Your task to perform on an android device: Clear all items from cart on walmart.com. Add energizer triple a to the cart on walmart.com Image 0: 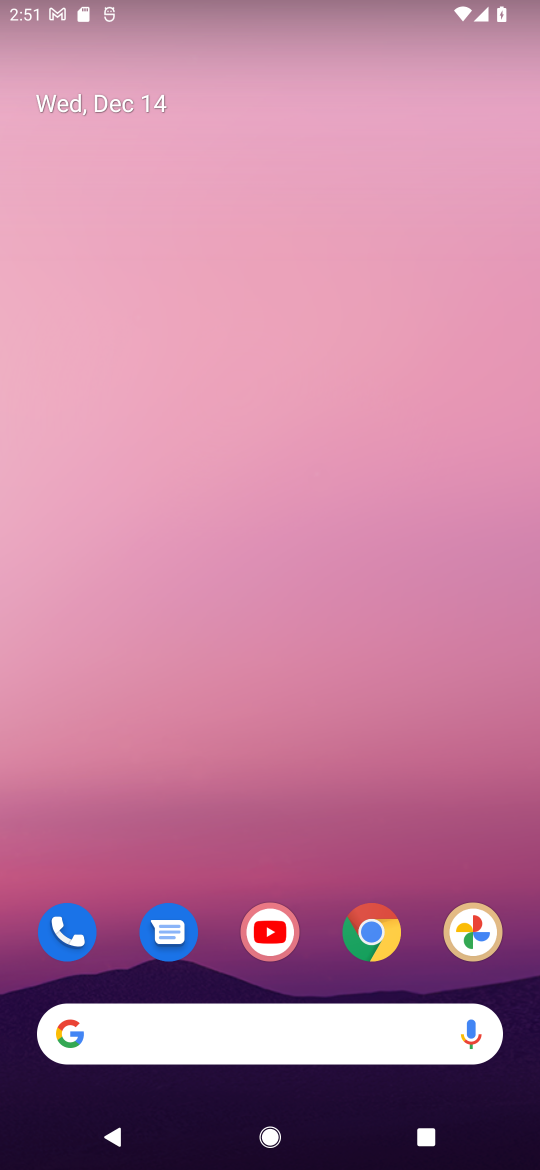
Step 0: click (259, 1030)
Your task to perform on an android device: Clear all items from cart on walmart.com. Add energizer triple a to the cart on walmart.com Image 1: 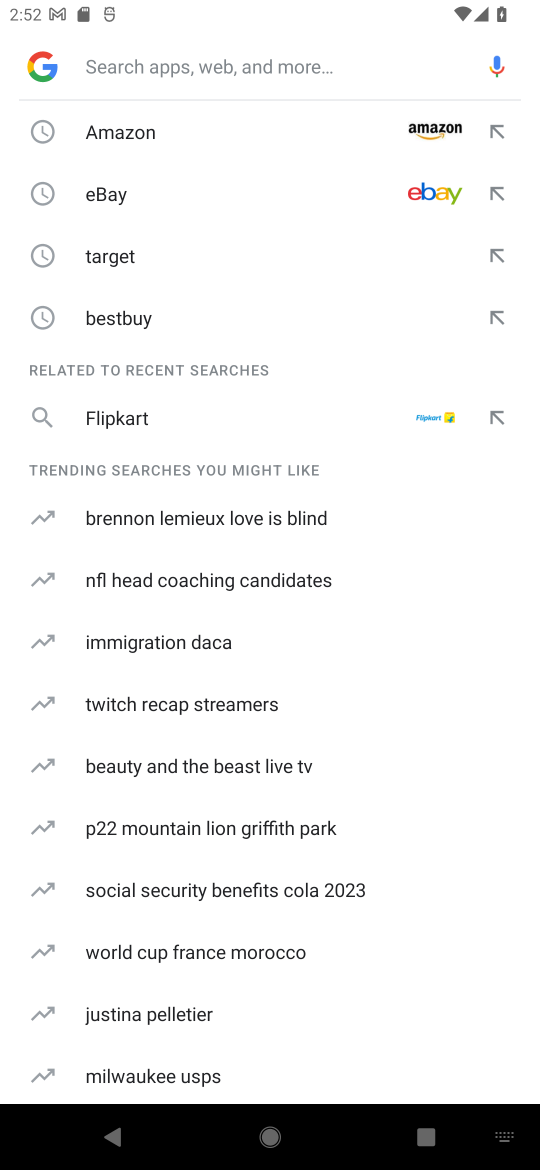
Step 1: type "walmart.com"
Your task to perform on an android device: Clear all items from cart on walmart.com. Add energizer triple a to the cart on walmart.com Image 2: 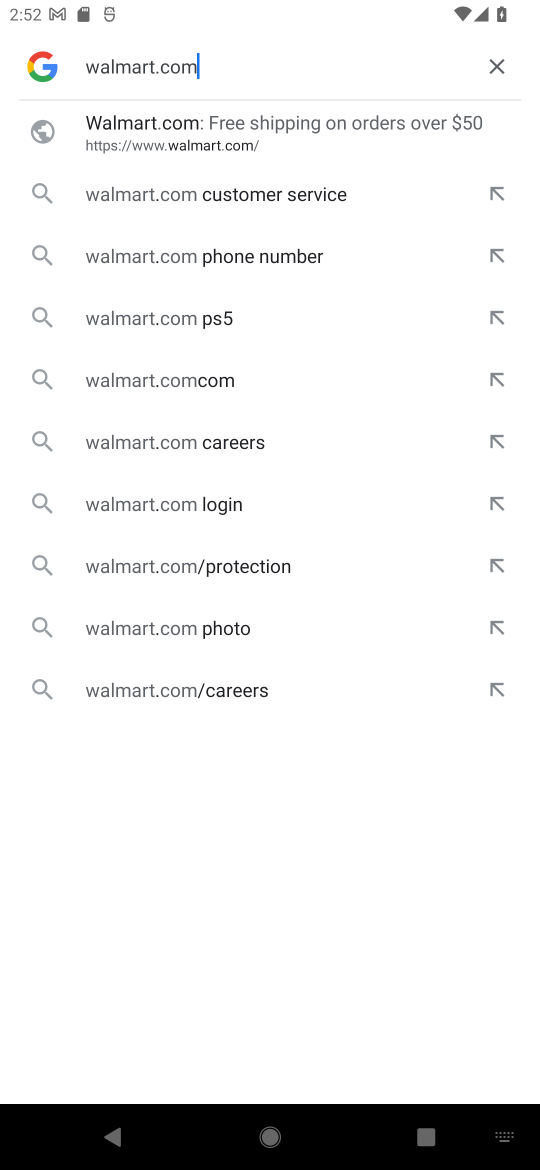
Step 2: click (224, 140)
Your task to perform on an android device: Clear all items from cart on walmart.com. Add energizer triple a to the cart on walmart.com Image 3: 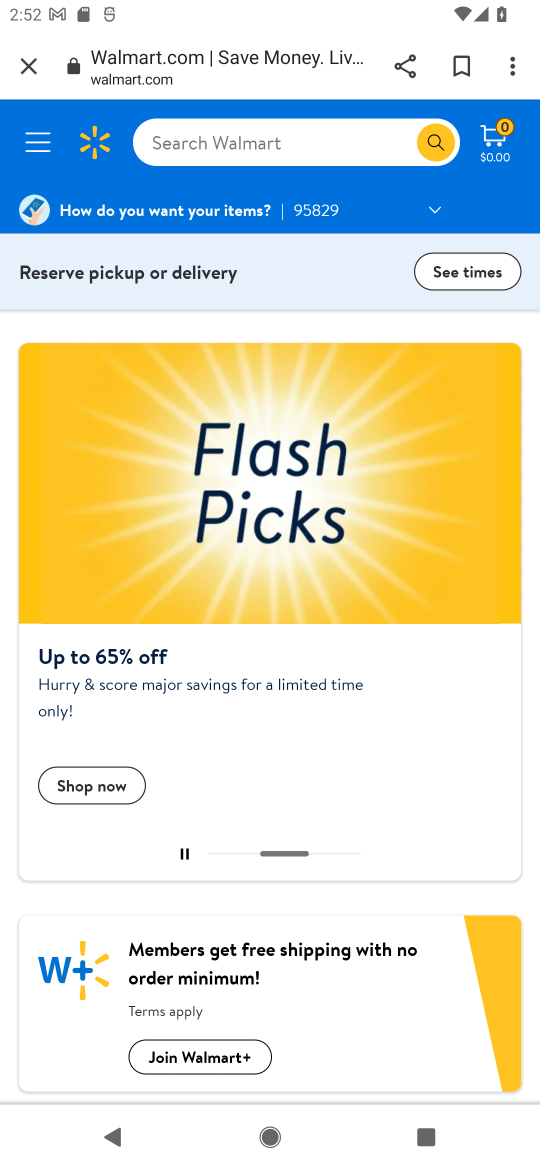
Step 3: click (491, 140)
Your task to perform on an android device: Clear all items from cart on walmart.com. Add energizer triple a to the cart on walmart.com Image 4: 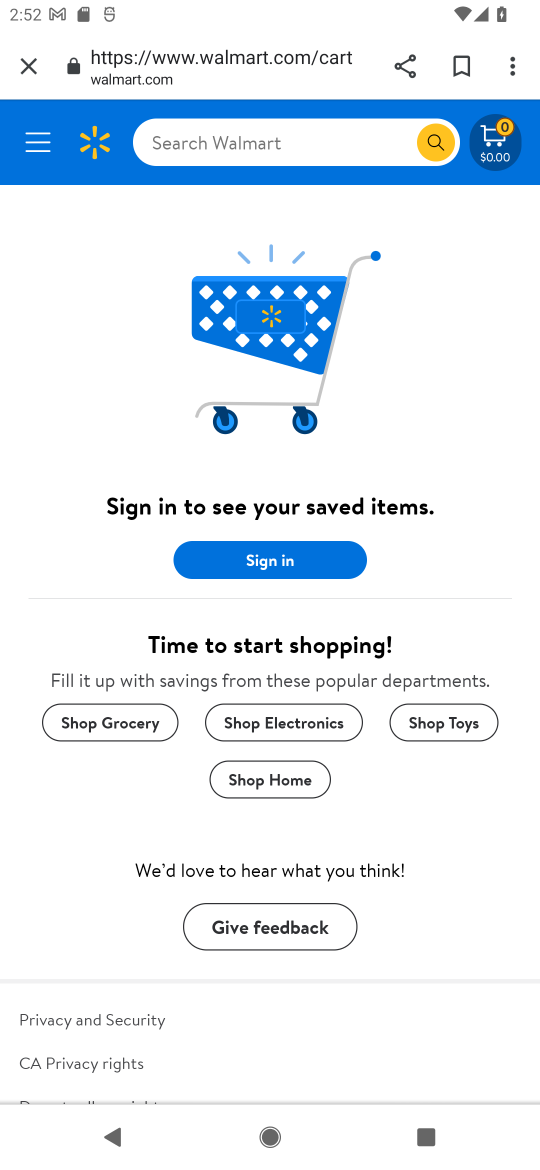
Step 4: click (277, 136)
Your task to perform on an android device: Clear all items from cart on walmart.com. Add energizer triple a to the cart on walmart.com Image 5: 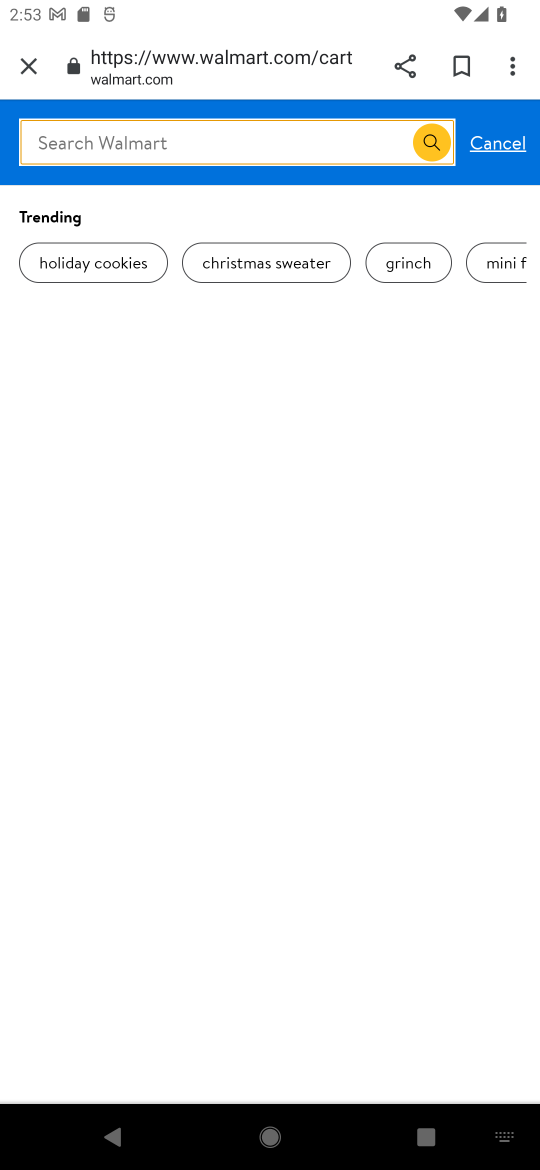
Step 5: type "energizer triple a"
Your task to perform on an android device: Clear all items from cart on walmart.com. Add energizer triple a to the cart on walmart.com Image 6: 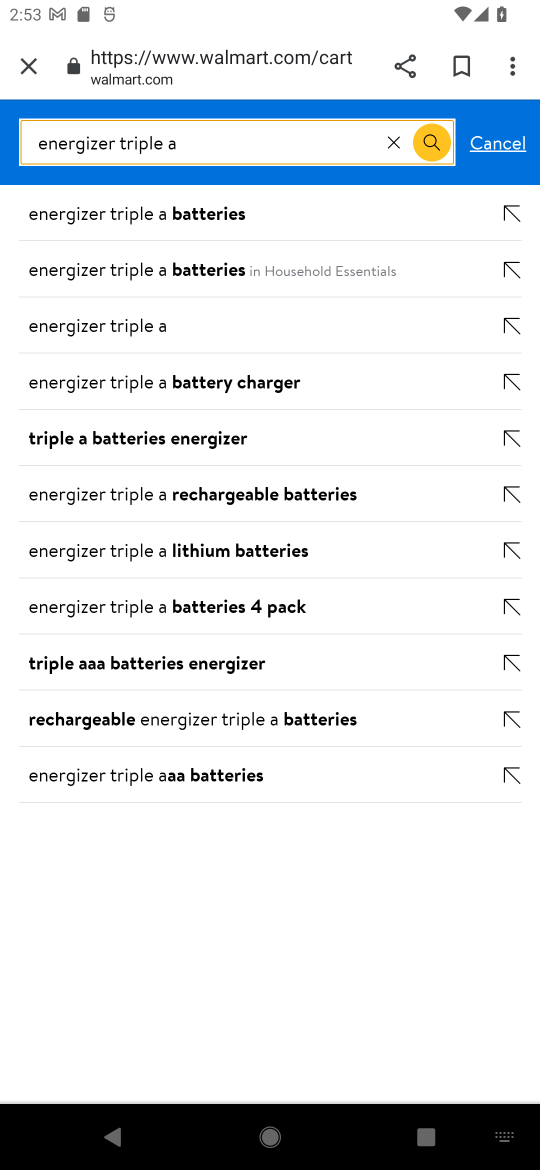
Step 6: click (178, 212)
Your task to perform on an android device: Clear all items from cart on walmart.com. Add energizer triple a to the cart on walmart.com Image 7: 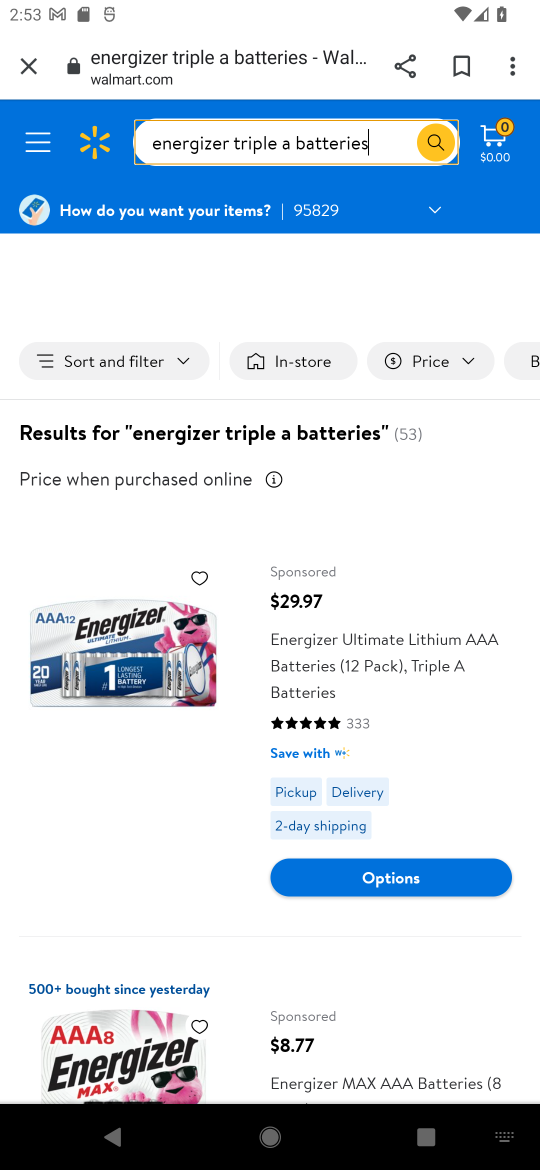
Step 7: click (381, 879)
Your task to perform on an android device: Clear all items from cart on walmart.com. Add energizer triple a to the cart on walmart.com Image 8: 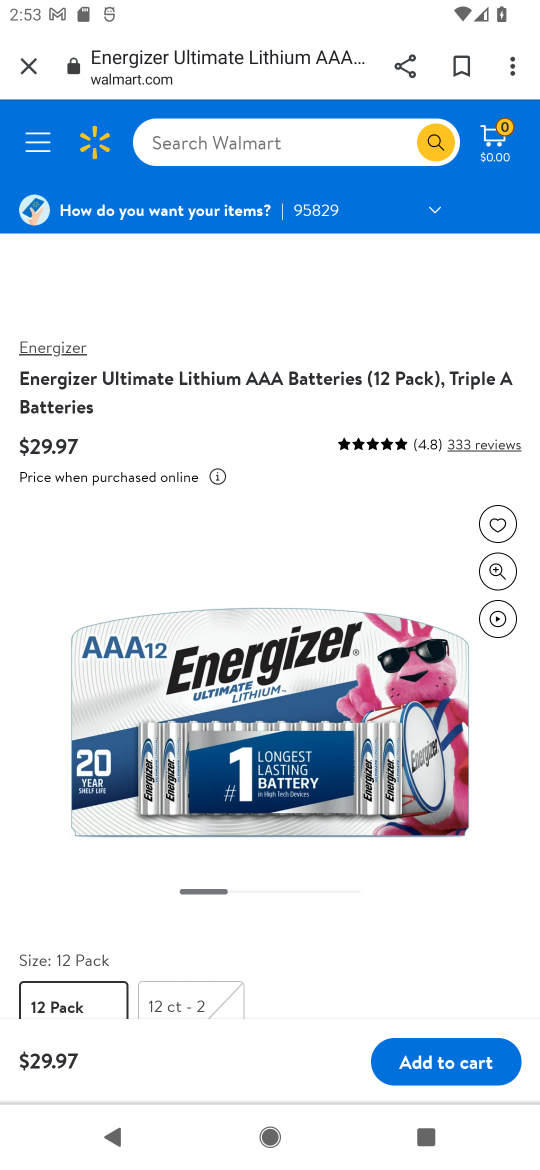
Step 8: click (424, 1056)
Your task to perform on an android device: Clear all items from cart on walmart.com. Add energizer triple a to the cart on walmart.com Image 9: 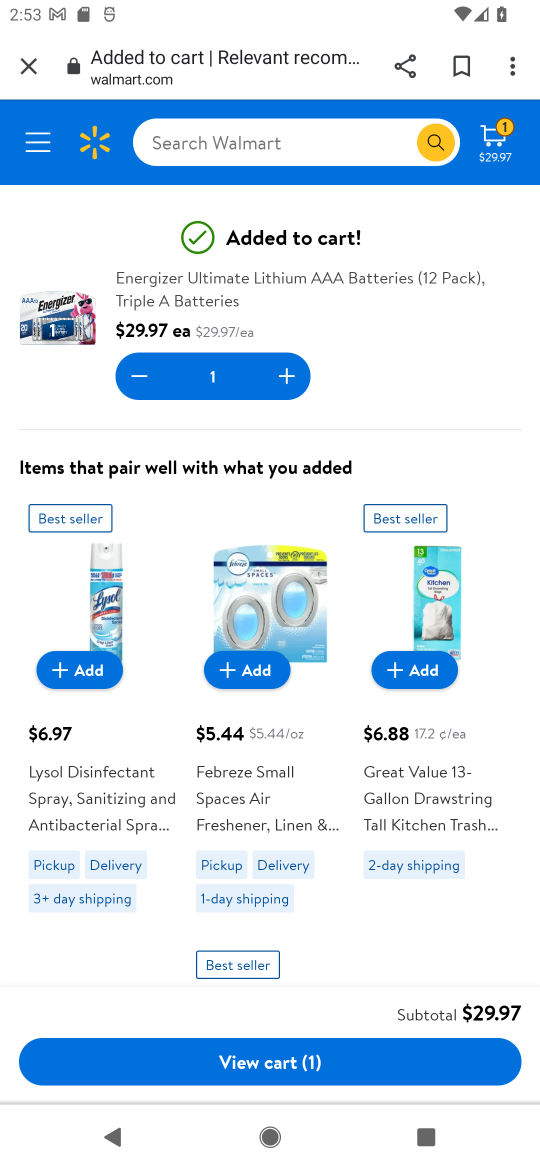
Step 9: task complete